Your task to perform on an android device: Open privacy settings Image 0: 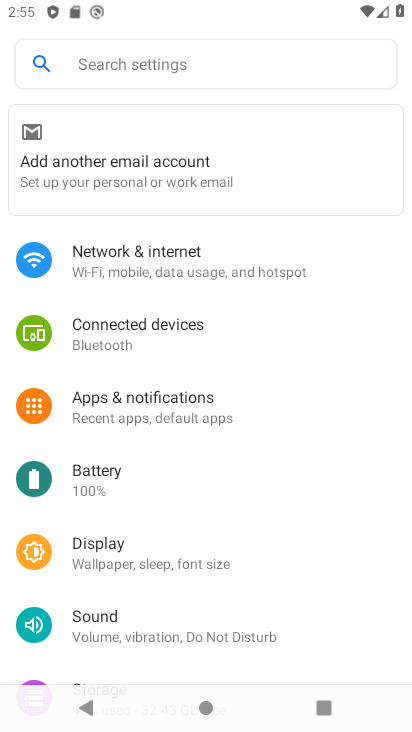
Step 0: drag from (154, 579) to (211, 270)
Your task to perform on an android device: Open privacy settings Image 1: 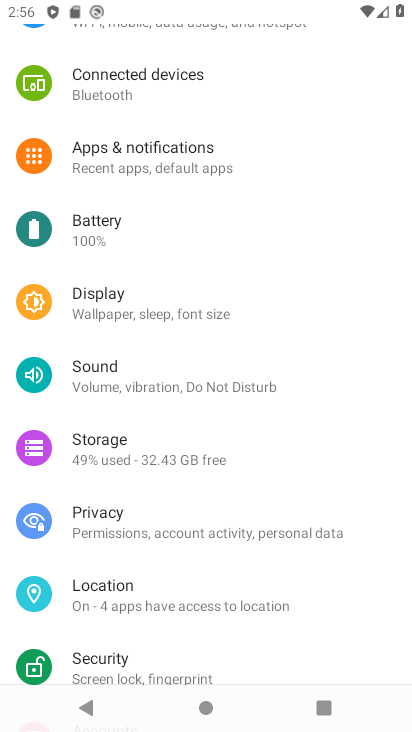
Step 1: click (104, 525)
Your task to perform on an android device: Open privacy settings Image 2: 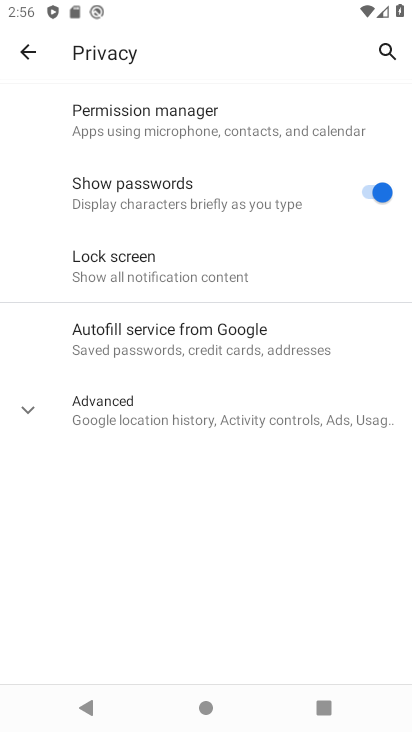
Step 2: task complete